Your task to perform on an android device: How much does a 2 bedroom apartment rent for in Miami? Image 0: 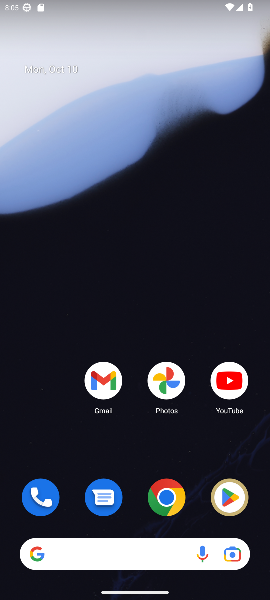
Step 0: drag from (93, 432) to (131, 98)
Your task to perform on an android device: How much does a 2 bedroom apartment rent for in Miami? Image 1: 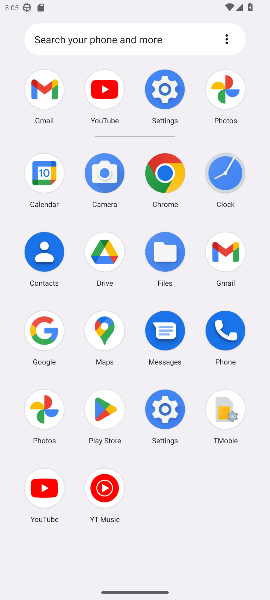
Step 1: click (51, 328)
Your task to perform on an android device: How much does a 2 bedroom apartment rent for in Miami? Image 2: 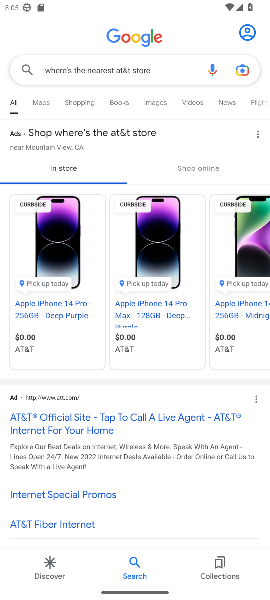
Step 2: click (132, 66)
Your task to perform on an android device: How much does a 2 bedroom apartment rent for in Miami? Image 3: 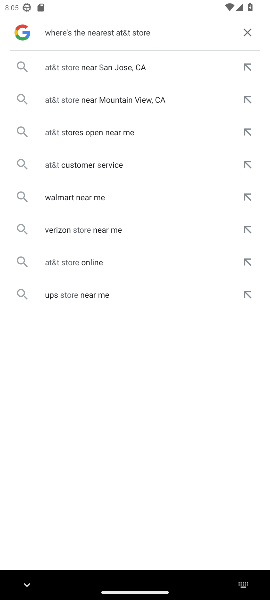
Step 3: click (243, 27)
Your task to perform on an android device: How much does a 2 bedroom apartment rent for in Miami? Image 4: 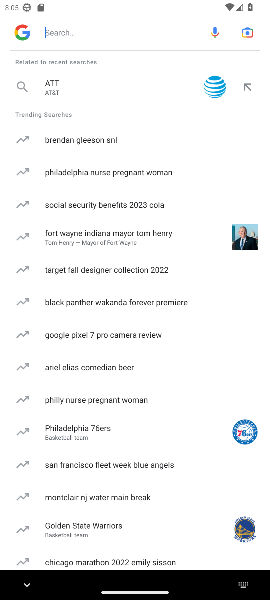
Step 4: click (129, 32)
Your task to perform on an android device: How much does a 2 bedroom apartment rent for in Miami? Image 5: 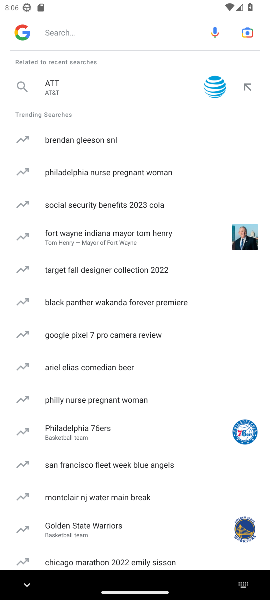
Step 5: type "How much does a 2 bedroom apartment rent for in Miami? "
Your task to perform on an android device: How much does a 2 bedroom apartment rent for in Miami? Image 6: 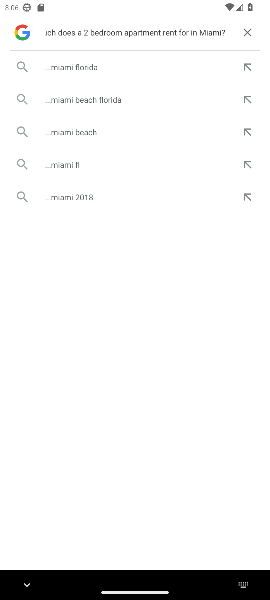
Step 6: click (47, 72)
Your task to perform on an android device: How much does a 2 bedroom apartment rent for in Miami? Image 7: 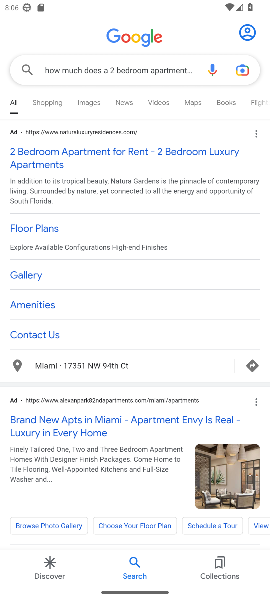
Step 7: click (90, 416)
Your task to perform on an android device: How much does a 2 bedroom apartment rent for in Miami? Image 8: 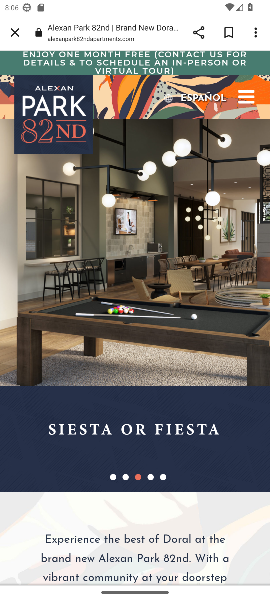
Step 8: task complete